Your task to perform on an android device: Open the web browser Image 0: 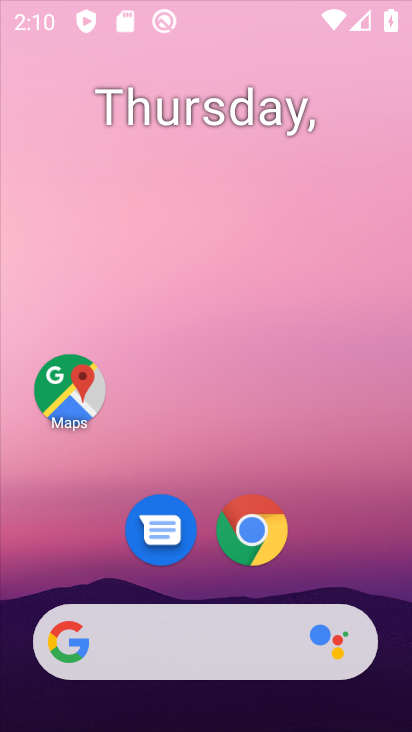
Step 0: click (186, 634)
Your task to perform on an android device: Open the web browser Image 1: 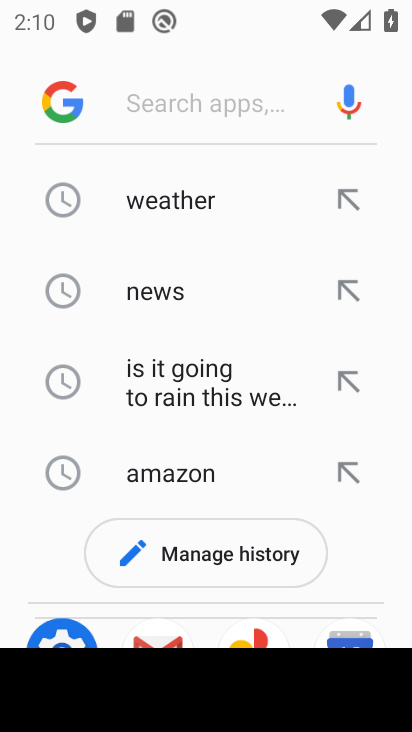
Step 1: press home button
Your task to perform on an android device: Open the web browser Image 2: 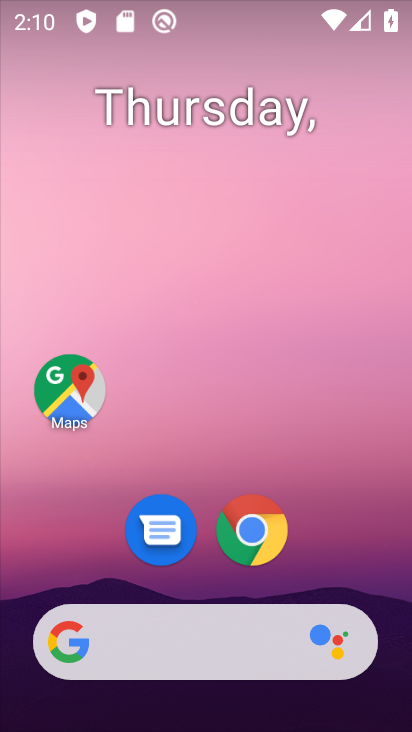
Step 2: click (260, 527)
Your task to perform on an android device: Open the web browser Image 3: 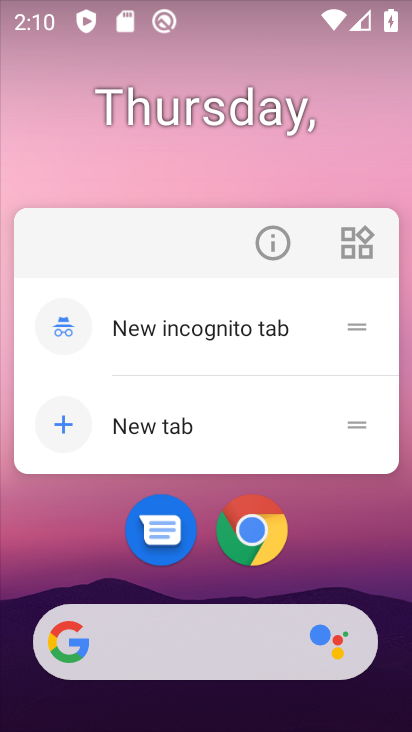
Step 3: click (260, 527)
Your task to perform on an android device: Open the web browser Image 4: 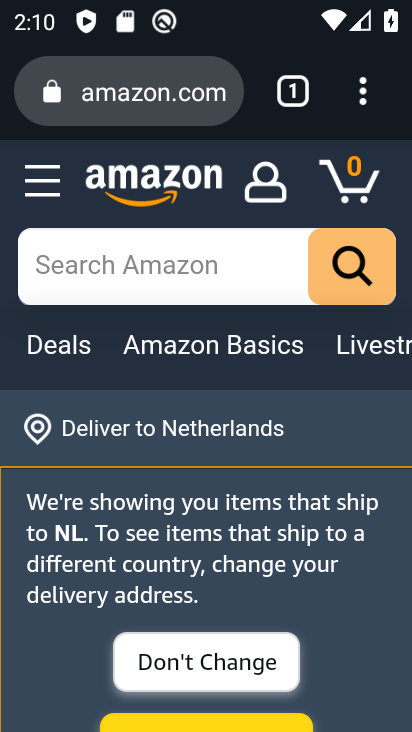
Step 4: task complete